Your task to perform on an android device: refresh tabs in the chrome app Image 0: 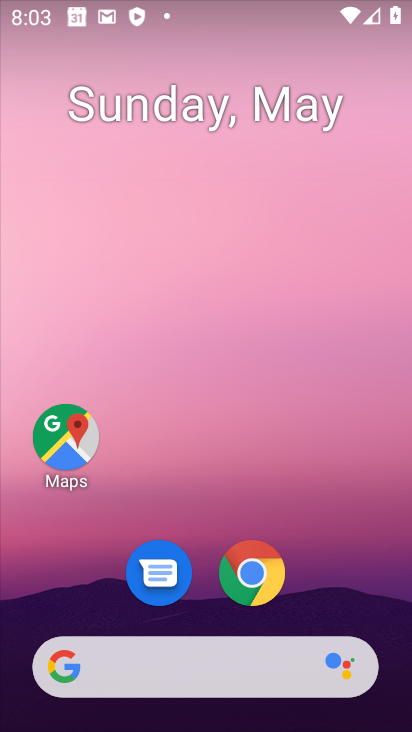
Step 0: click (256, 568)
Your task to perform on an android device: refresh tabs in the chrome app Image 1: 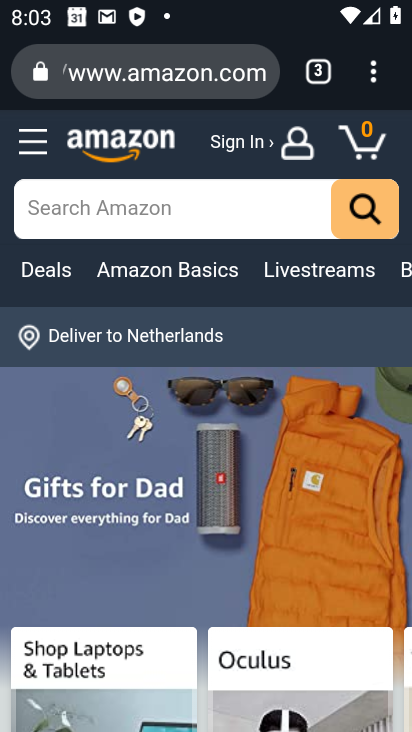
Step 1: click (374, 73)
Your task to perform on an android device: refresh tabs in the chrome app Image 2: 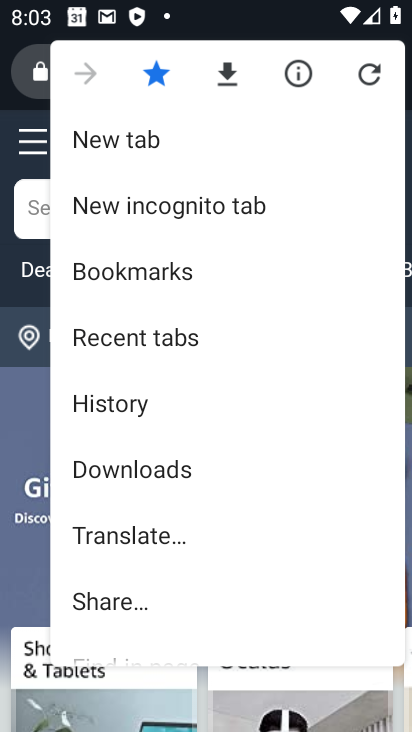
Step 2: click (368, 73)
Your task to perform on an android device: refresh tabs in the chrome app Image 3: 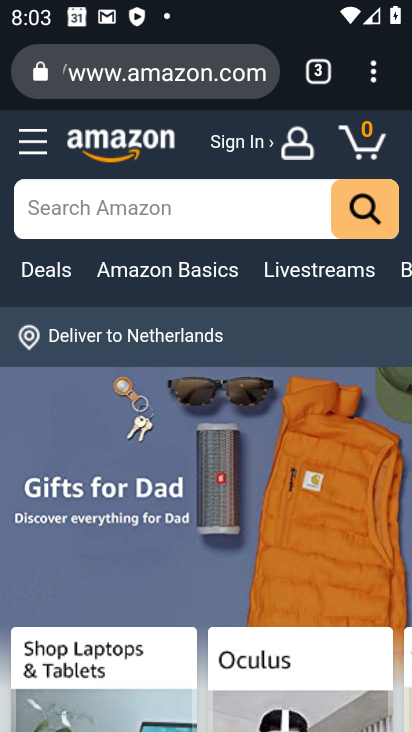
Step 3: task complete